Your task to perform on an android device: Open the Play Movies app and select the watchlist tab. Image 0: 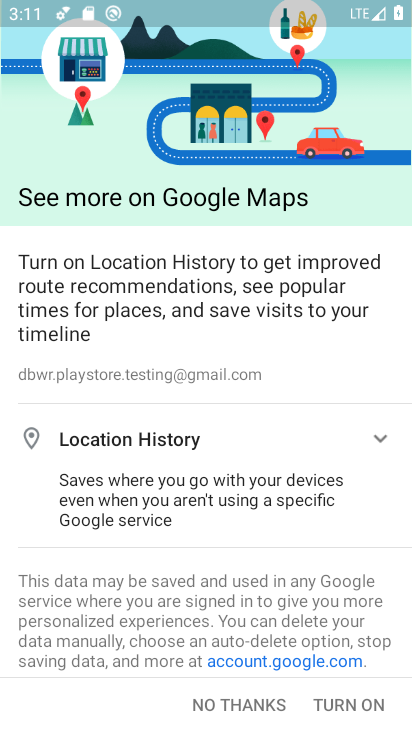
Step 0: press home button
Your task to perform on an android device: Open the Play Movies app and select the watchlist tab. Image 1: 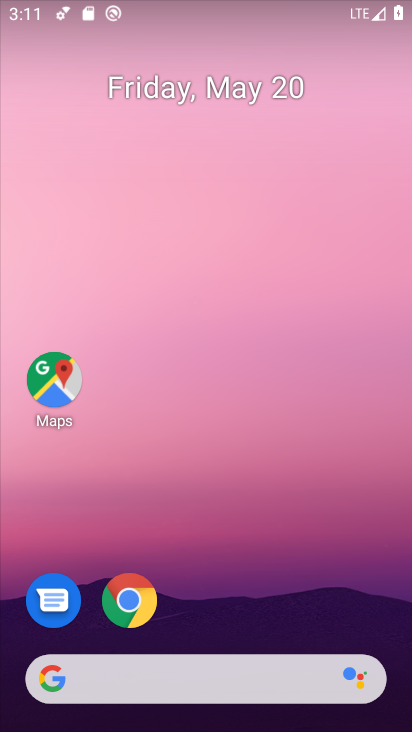
Step 1: drag from (367, 615) to (363, 242)
Your task to perform on an android device: Open the Play Movies app and select the watchlist tab. Image 2: 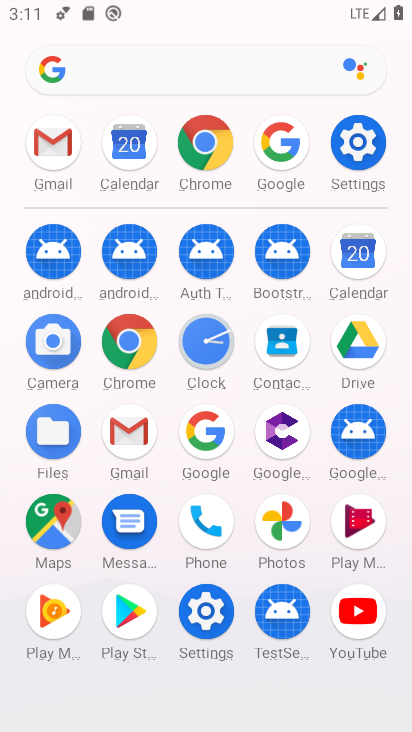
Step 2: click (357, 524)
Your task to perform on an android device: Open the Play Movies app and select the watchlist tab. Image 3: 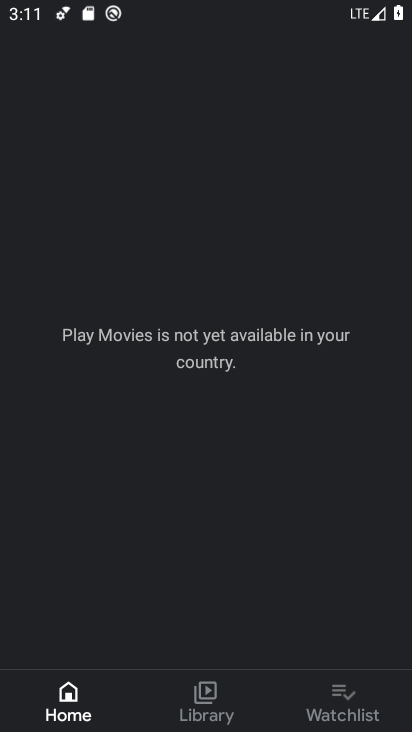
Step 3: click (360, 706)
Your task to perform on an android device: Open the Play Movies app and select the watchlist tab. Image 4: 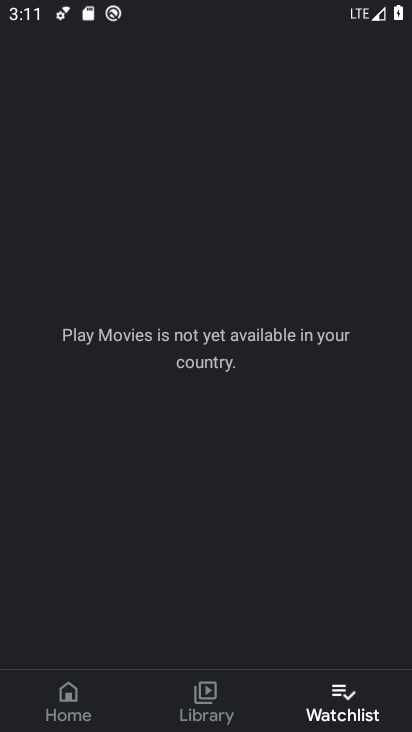
Step 4: task complete